Your task to perform on an android device: Turn off the flashlight Image 0: 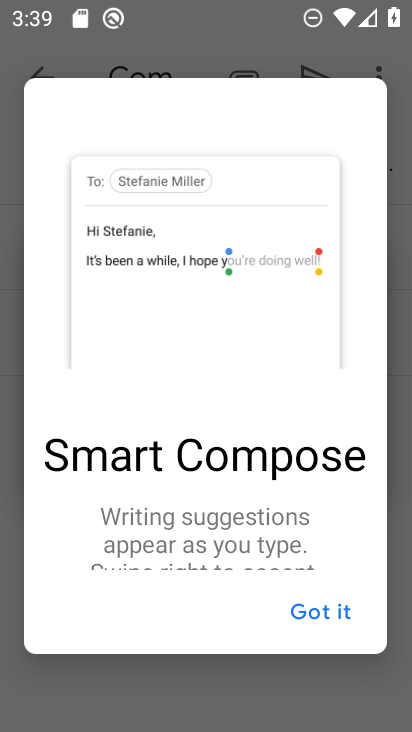
Step 0: press home button
Your task to perform on an android device: Turn off the flashlight Image 1: 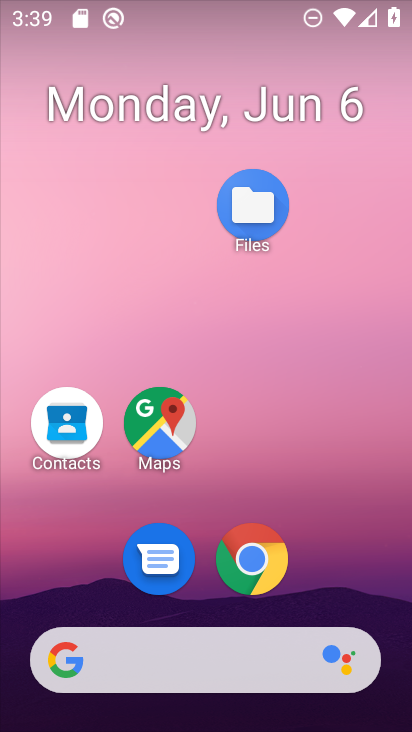
Step 1: task complete